Your task to perform on an android device: install app "Google Play Games" Image 0: 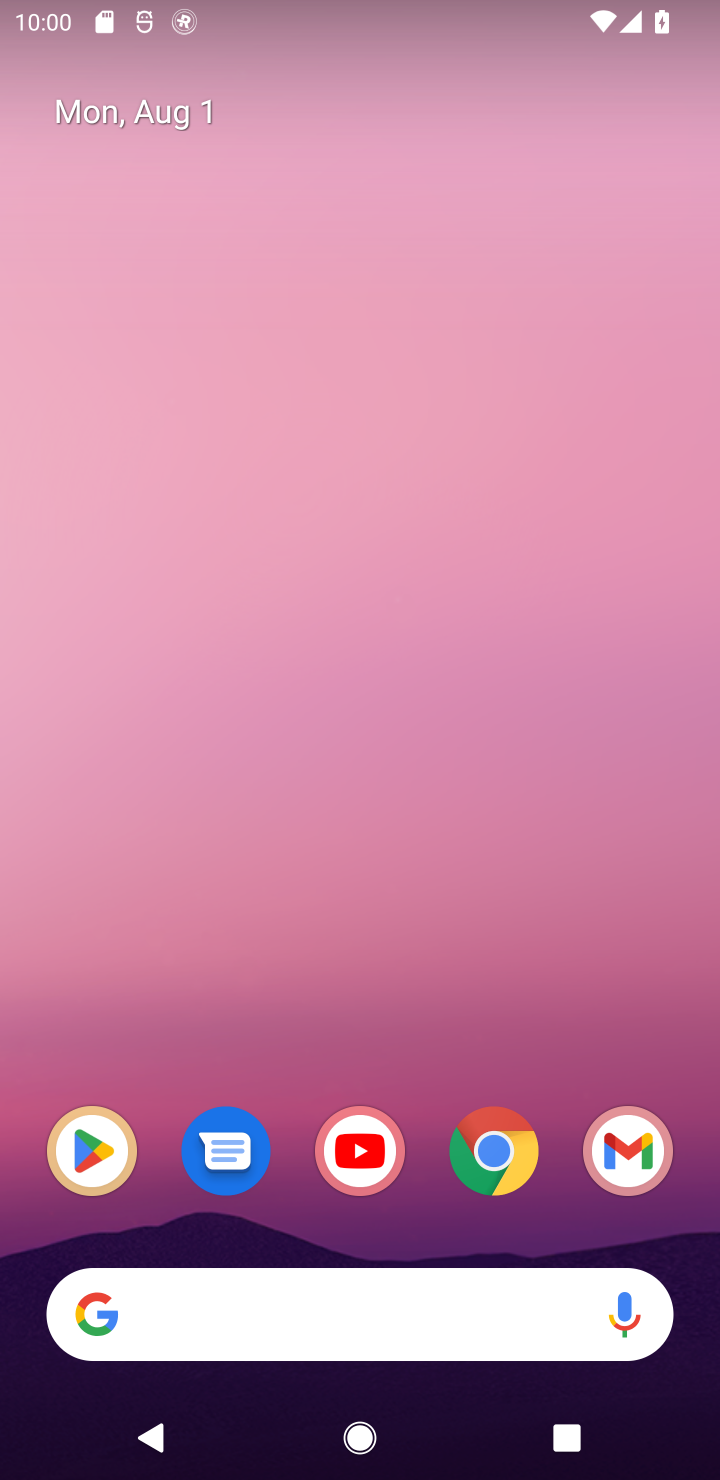
Step 0: click (91, 1170)
Your task to perform on an android device: install app "Google Play Games" Image 1: 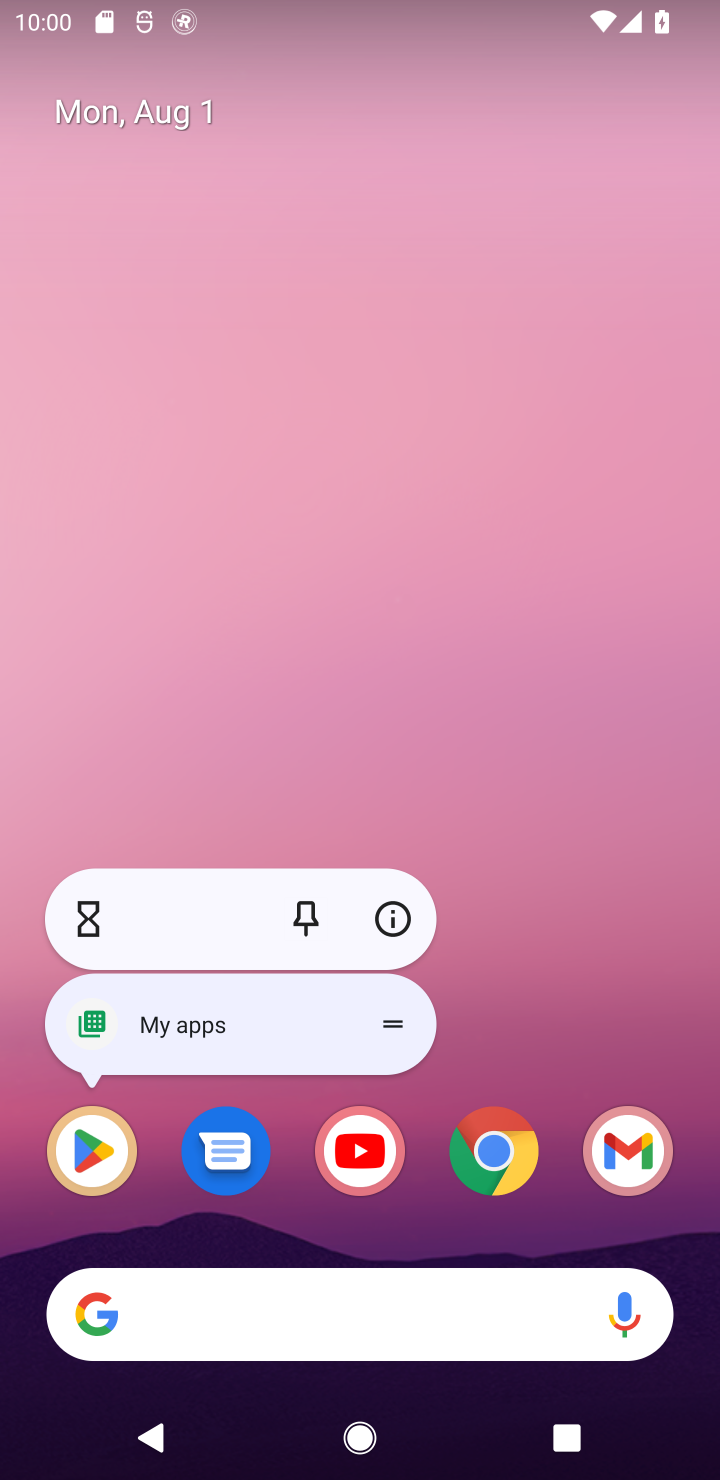
Step 1: click (93, 1167)
Your task to perform on an android device: install app "Google Play Games" Image 2: 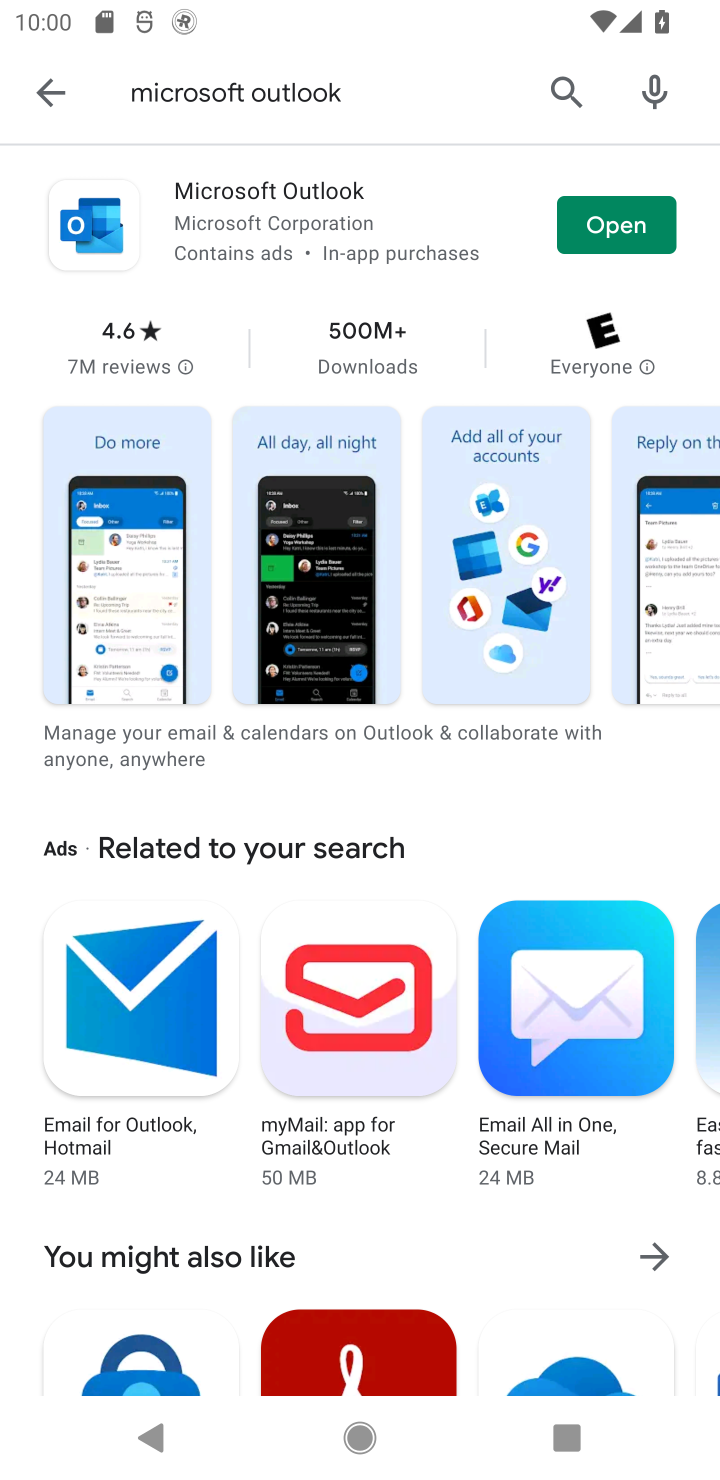
Step 2: click (580, 98)
Your task to perform on an android device: install app "Google Play Games" Image 3: 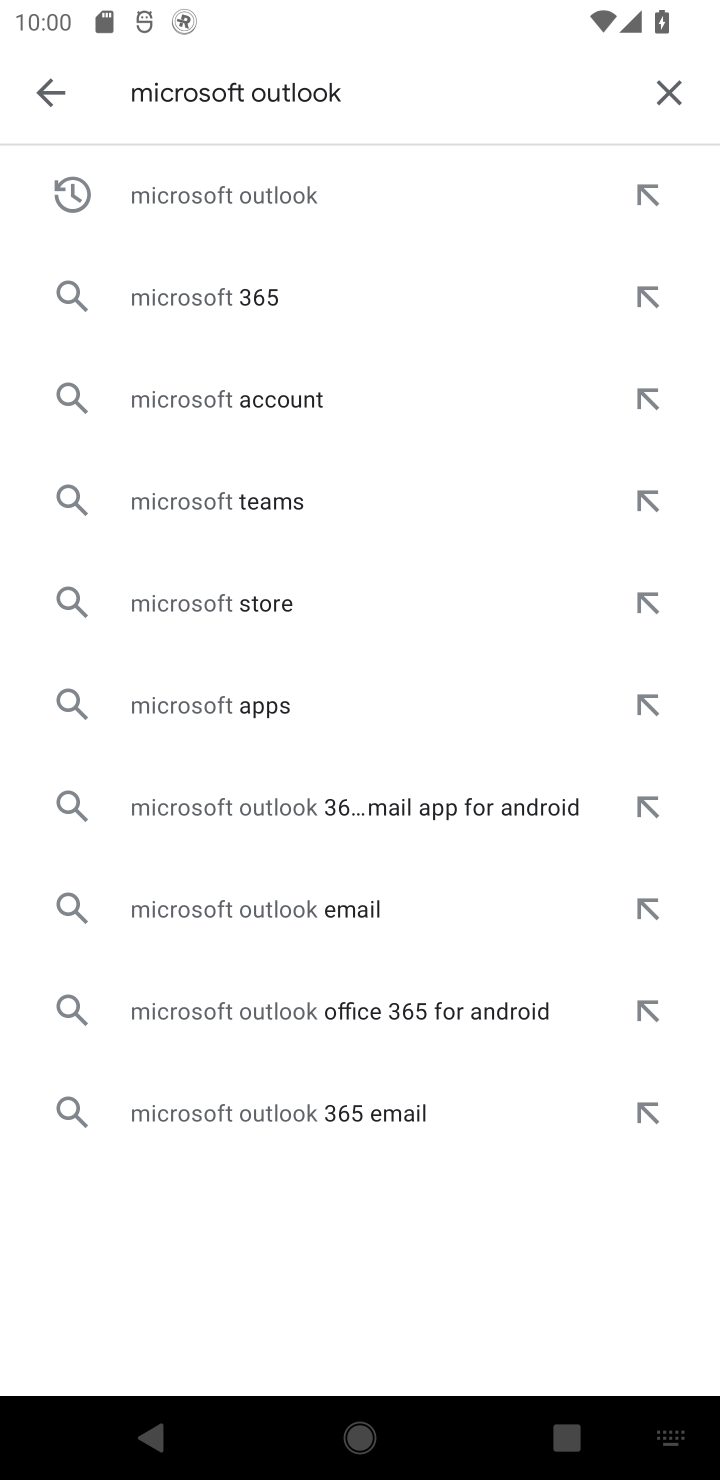
Step 3: click (662, 101)
Your task to perform on an android device: install app "Google Play Games" Image 4: 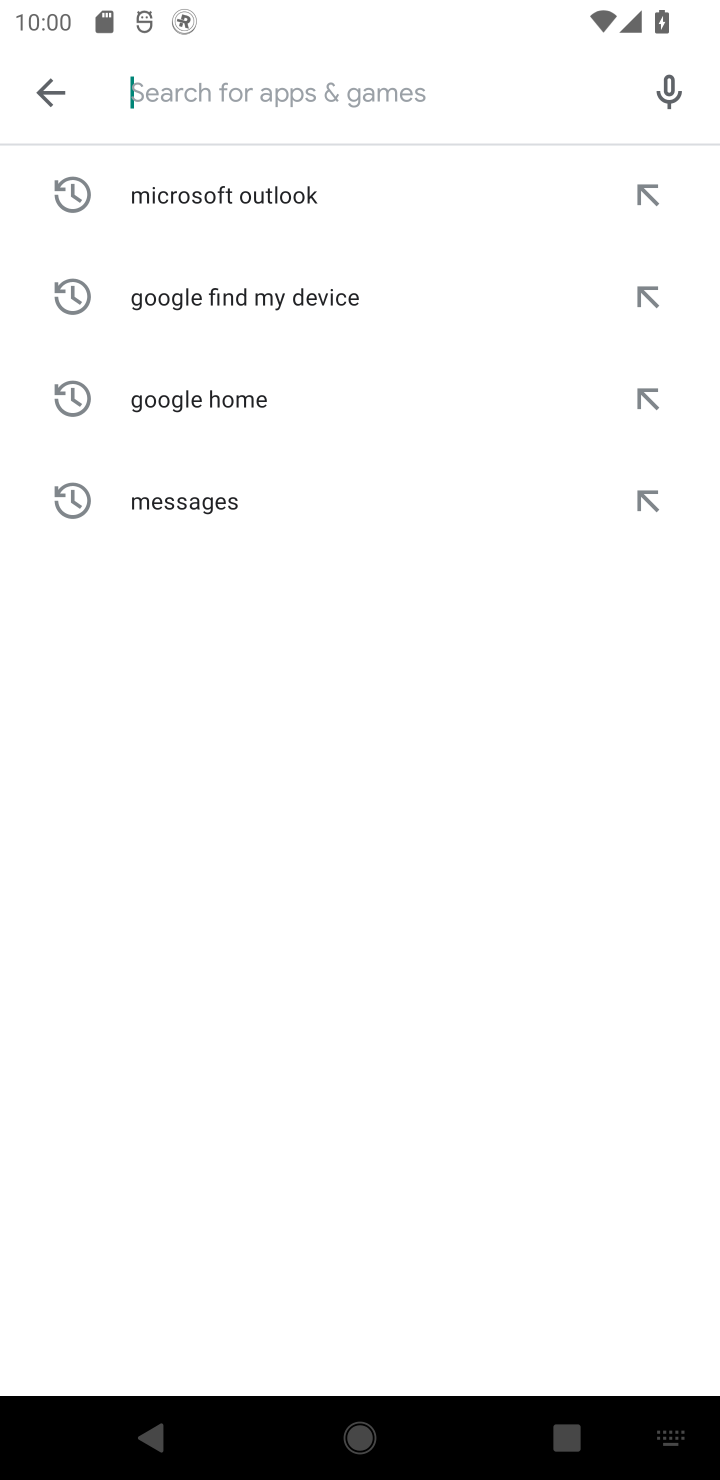
Step 4: type "Google Play Games"
Your task to perform on an android device: install app "Google Play Games" Image 5: 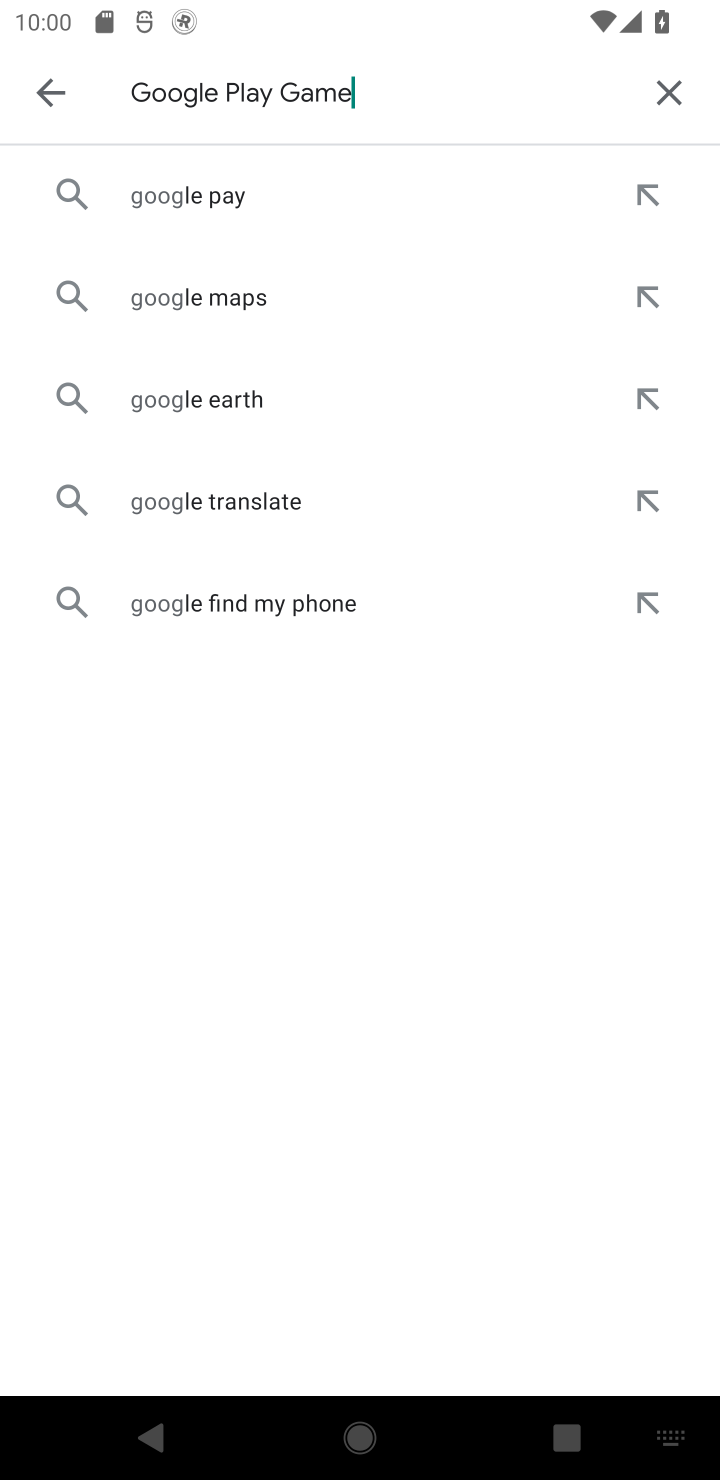
Step 5: type ""
Your task to perform on an android device: install app "Google Play Games" Image 6: 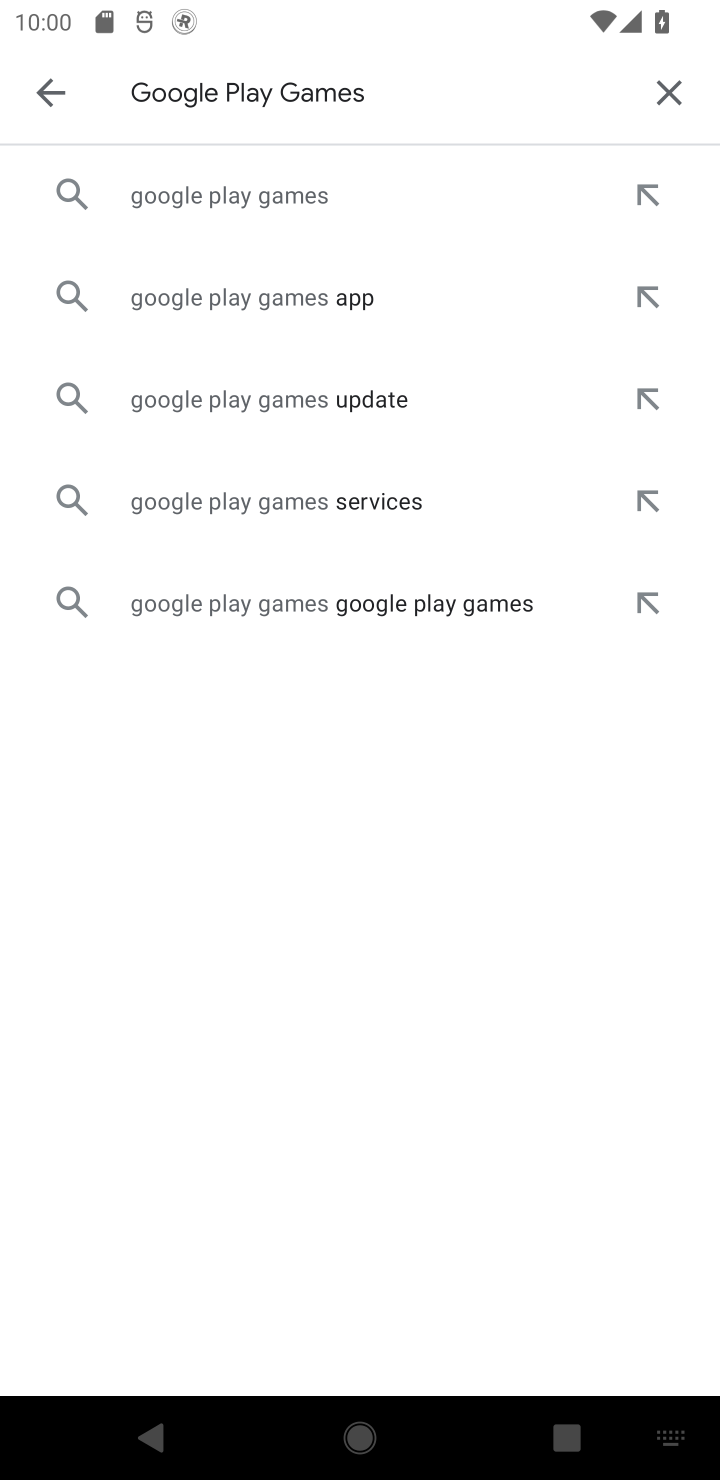
Step 6: click (370, 203)
Your task to perform on an android device: install app "Google Play Games" Image 7: 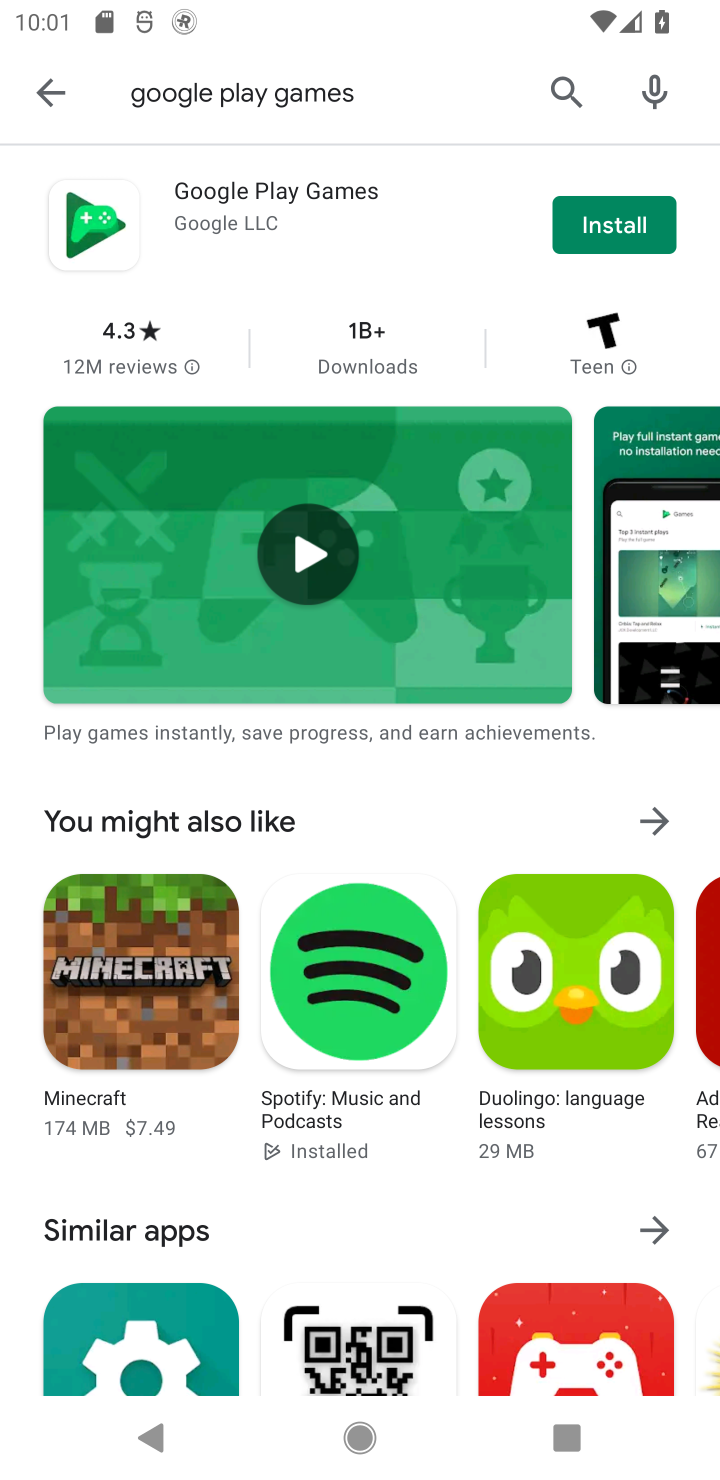
Step 7: click (584, 236)
Your task to perform on an android device: install app "Google Play Games" Image 8: 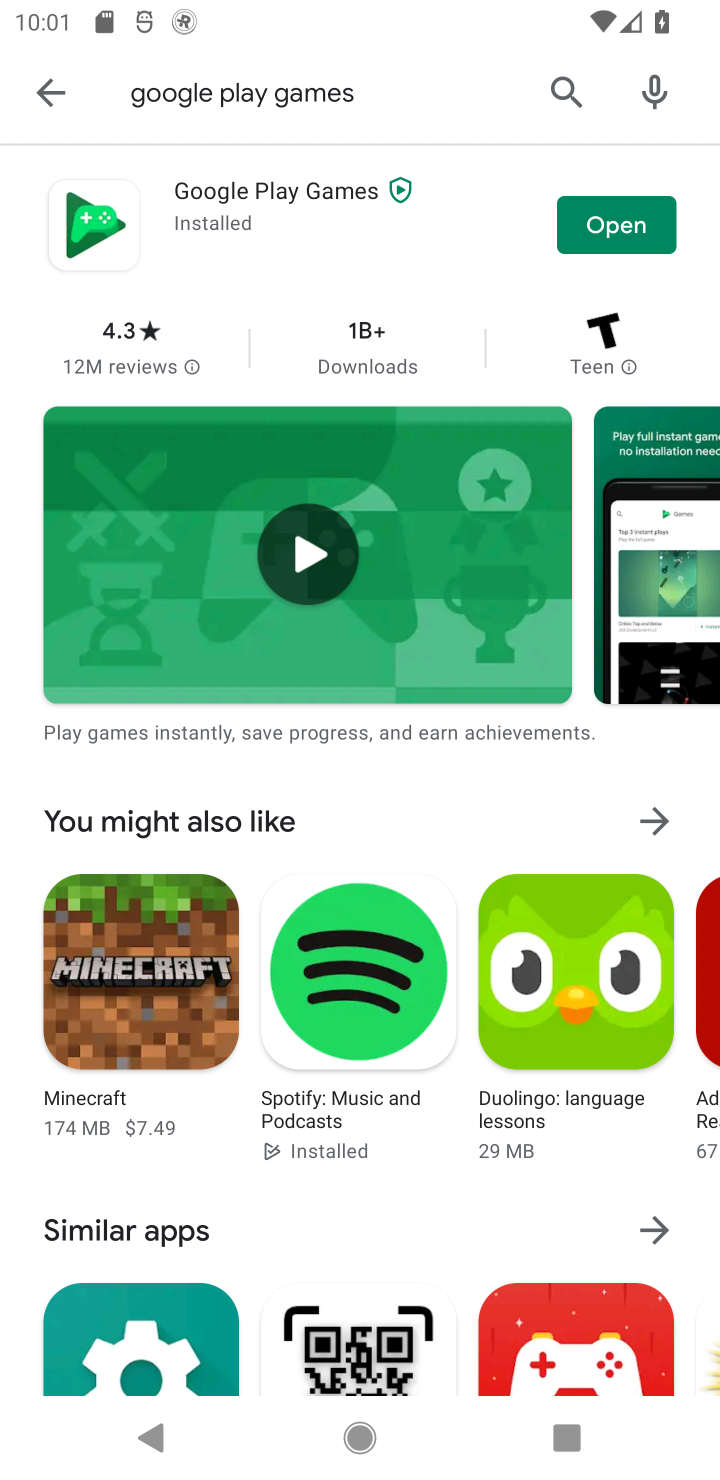
Step 8: task complete